Your task to perform on an android device: turn off location Image 0: 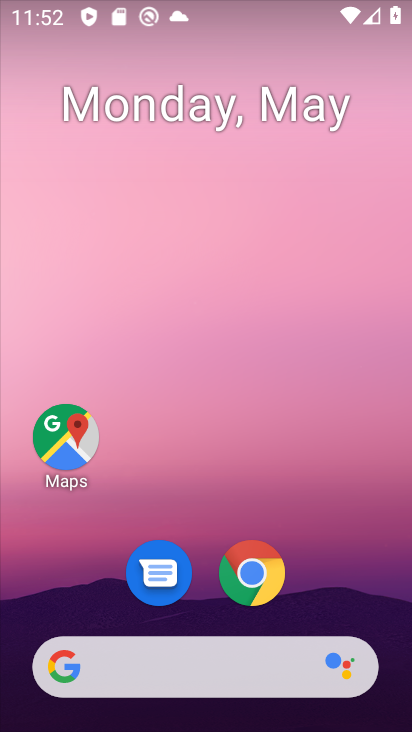
Step 0: drag from (358, 591) to (323, 10)
Your task to perform on an android device: turn off location Image 1: 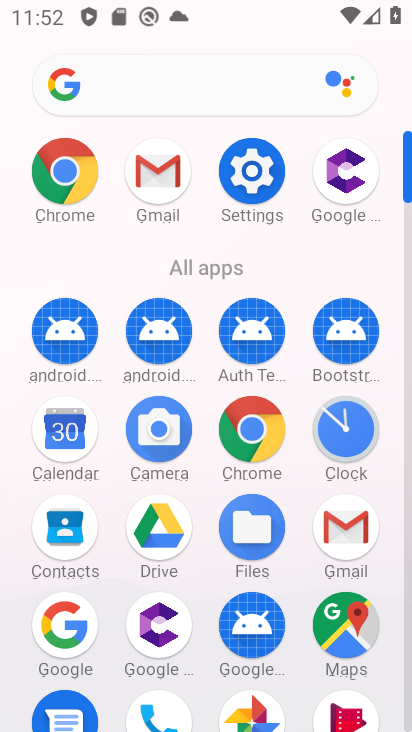
Step 1: click (269, 170)
Your task to perform on an android device: turn off location Image 2: 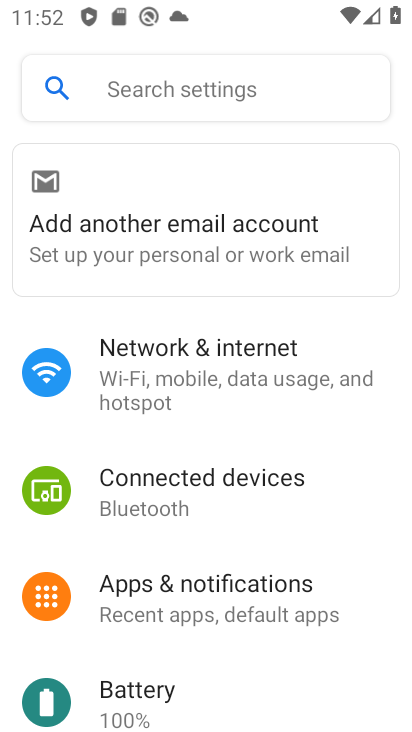
Step 2: drag from (238, 587) to (278, 203)
Your task to perform on an android device: turn off location Image 3: 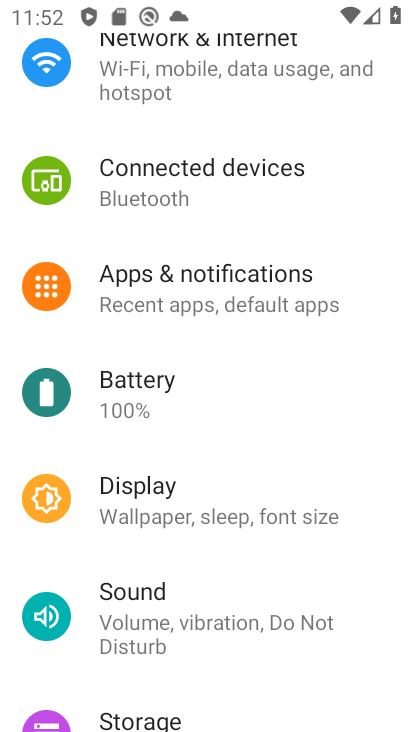
Step 3: drag from (252, 623) to (231, 305)
Your task to perform on an android device: turn off location Image 4: 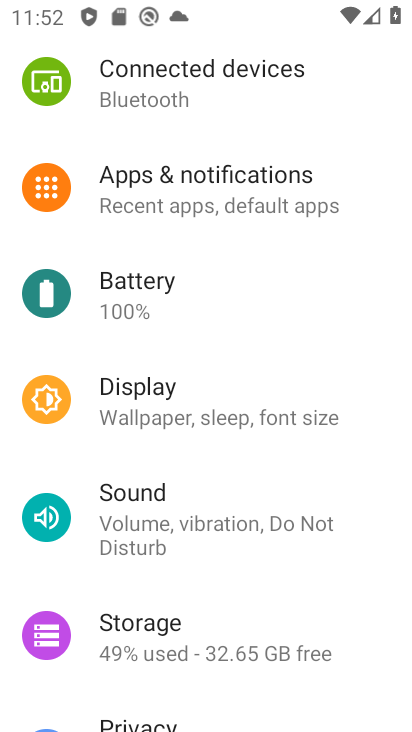
Step 4: drag from (202, 625) to (216, 205)
Your task to perform on an android device: turn off location Image 5: 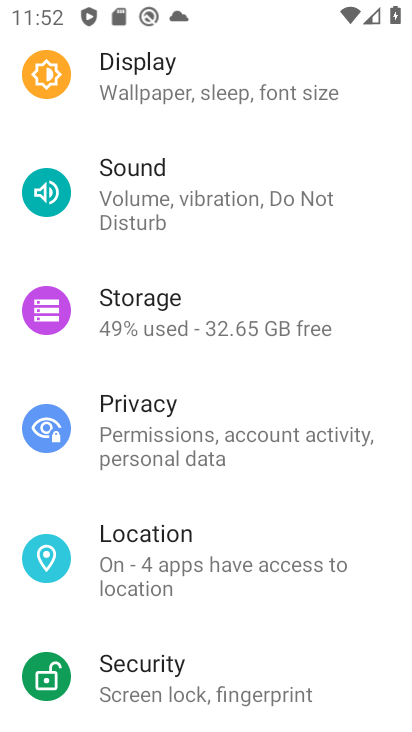
Step 5: click (152, 551)
Your task to perform on an android device: turn off location Image 6: 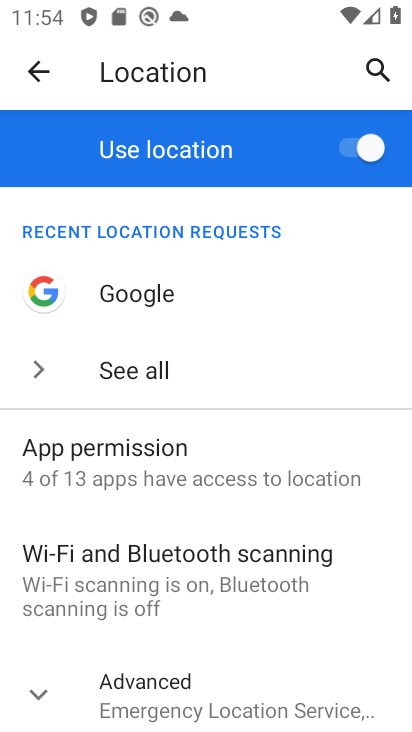
Step 6: click (358, 152)
Your task to perform on an android device: turn off location Image 7: 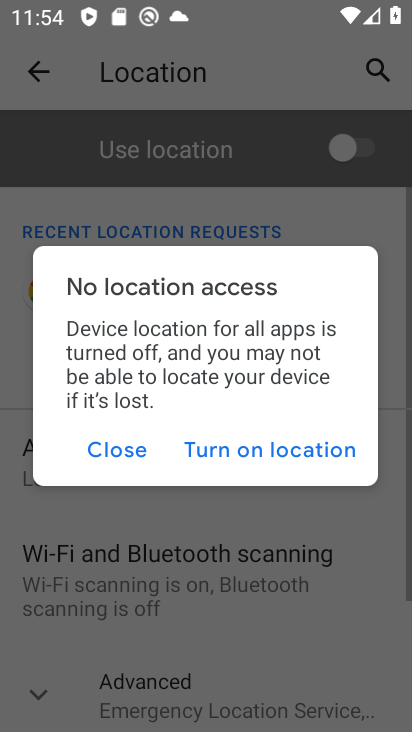
Step 7: task complete